Your task to perform on an android device: Play the last video I watched on Youtube Image 0: 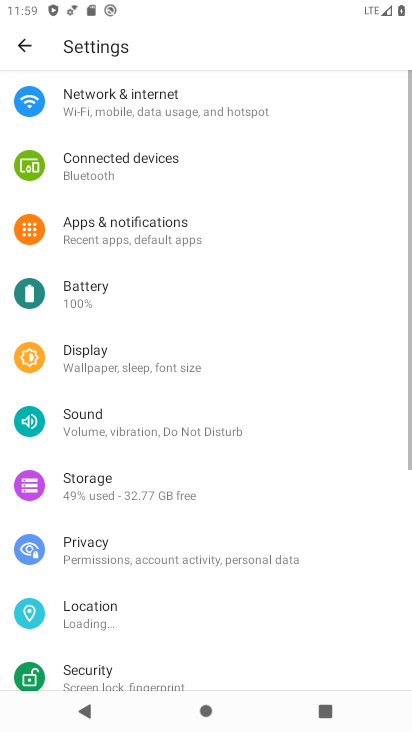
Step 0: press home button
Your task to perform on an android device: Play the last video I watched on Youtube Image 1: 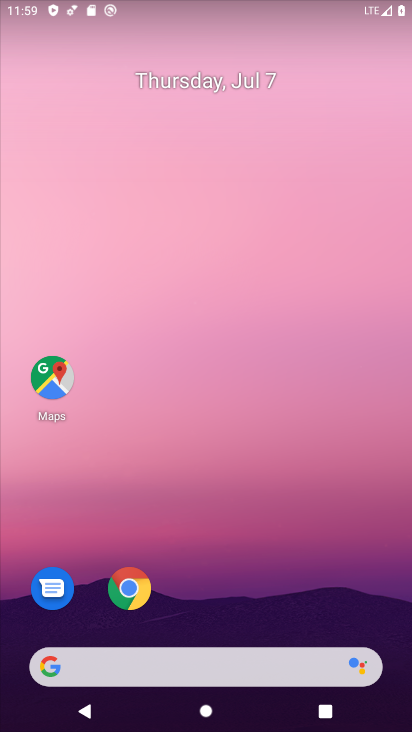
Step 1: drag from (222, 632) to (222, 37)
Your task to perform on an android device: Play the last video I watched on Youtube Image 2: 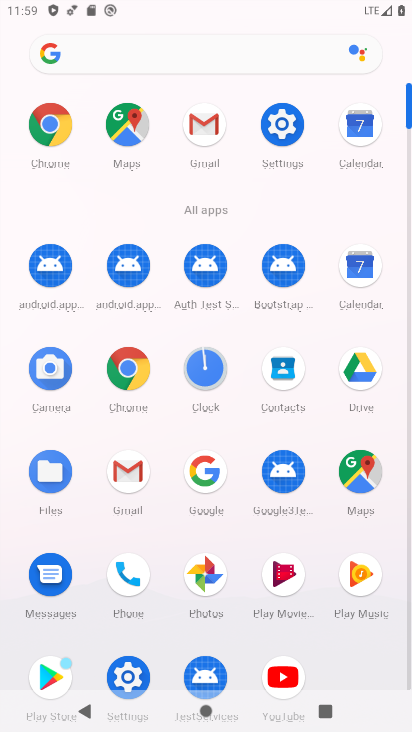
Step 2: click (280, 671)
Your task to perform on an android device: Play the last video I watched on Youtube Image 3: 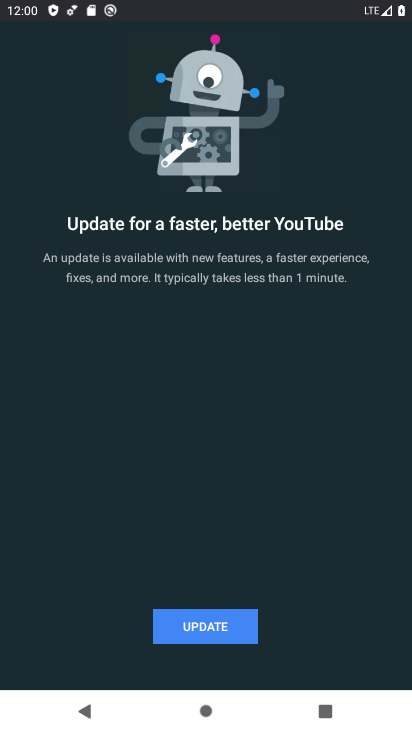
Step 3: click (206, 623)
Your task to perform on an android device: Play the last video I watched on Youtube Image 4: 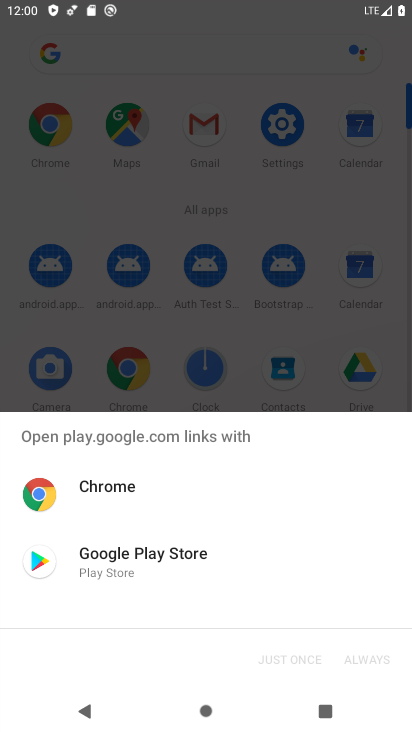
Step 4: click (179, 574)
Your task to perform on an android device: Play the last video I watched on Youtube Image 5: 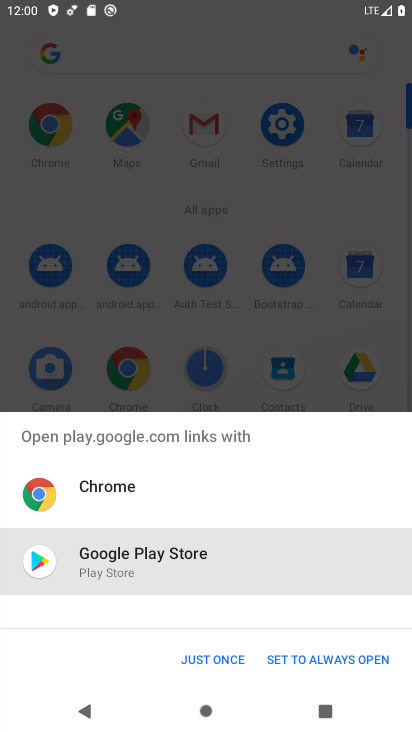
Step 5: click (214, 660)
Your task to perform on an android device: Play the last video I watched on Youtube Image 6: 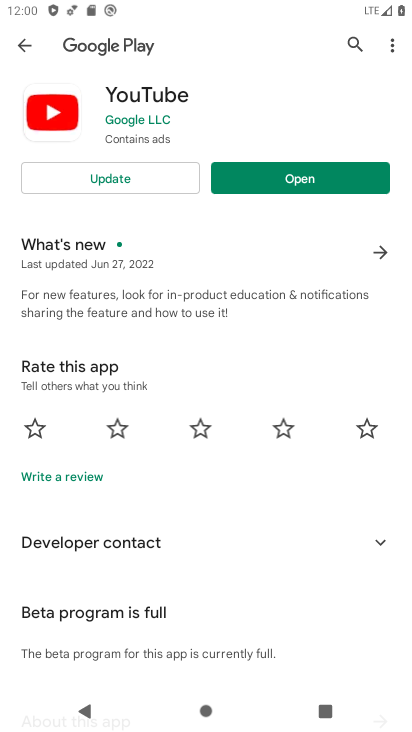
Step 6: click (103, 177)
Your task to perform on an android device: Play the last video I watched on Youtube Image 7: 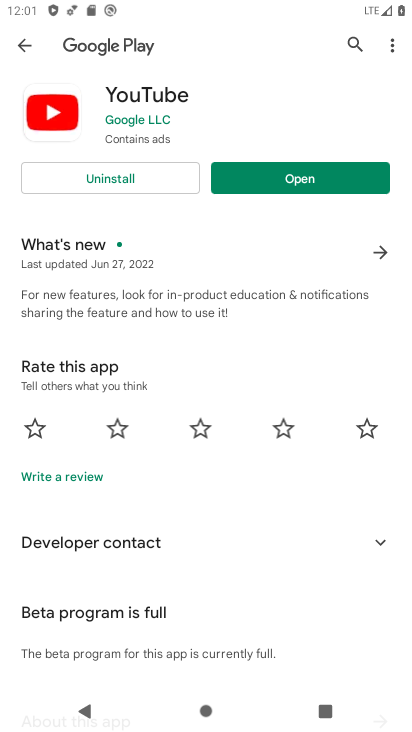
Step 7: click (299, 181)
Your task to perform on an android device: Play the last video I watched on Youtube Image 8: 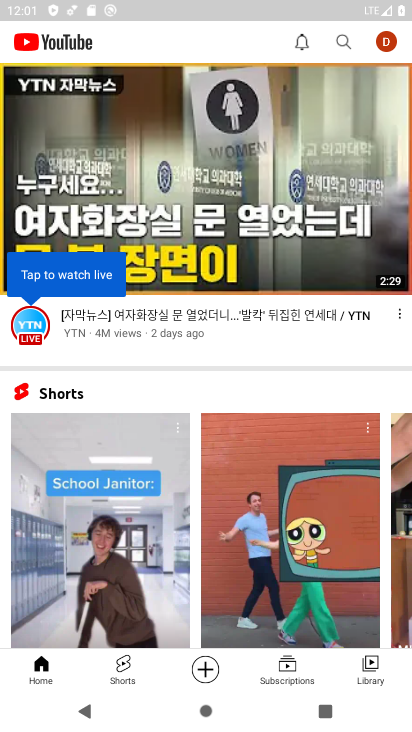
Step 8: click (366, 664)
Your task to perform on an android device: Play the last video I watched on Youtube Image 9: 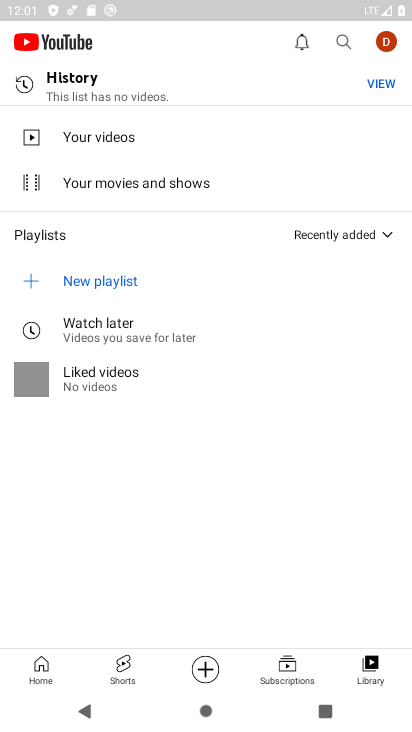
Step 9: click (375, 79)
Your task to perform on an android device: Play the last video I watched on Youtube Image 10: 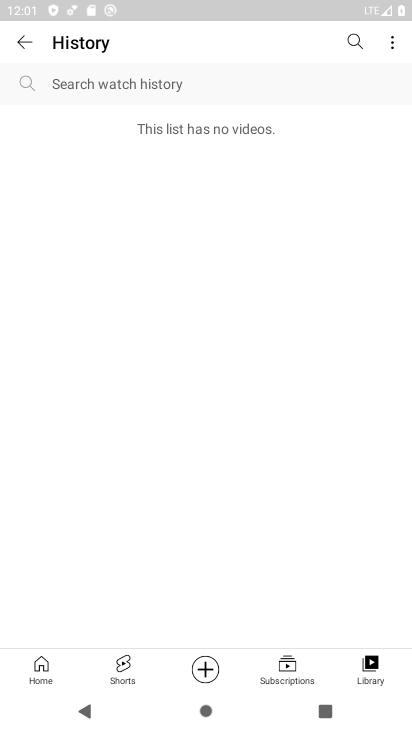
Step 10: task complete